Your task to perform on an android device: Play the last video I watched on Youtube Image 0: 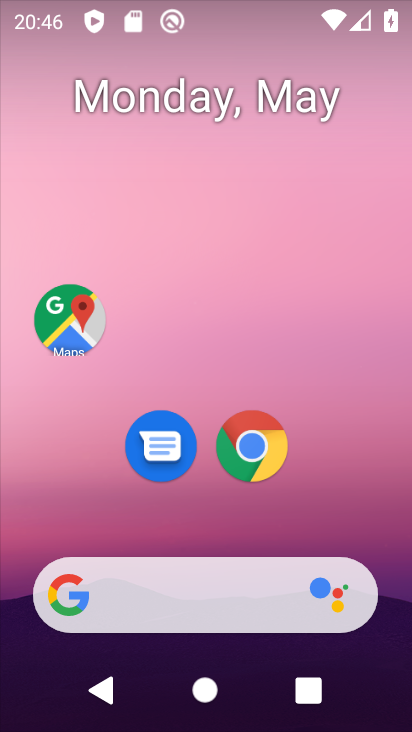
Step 0: drag from (348, 456) to (343, 103)
Your task to perform on an android device: Play the last video I watched on Youtube Image 1: 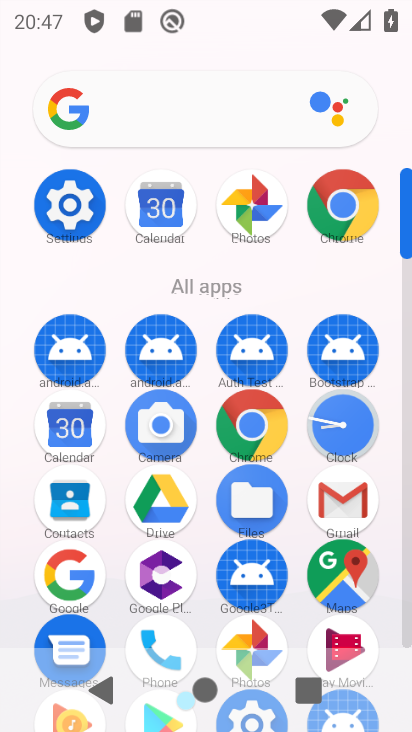
Step 1: drag from (301, 531) to (330, 215)
Your task to perform on an android device: Play the last video I watched on Youtube Image 2: 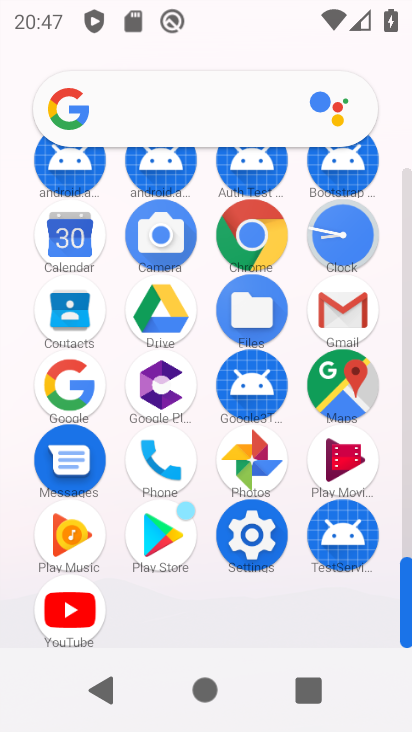
Step 2: click (79, 610)
Your task to perform on an android device: Play the last video I watched on Youtube Image 3: 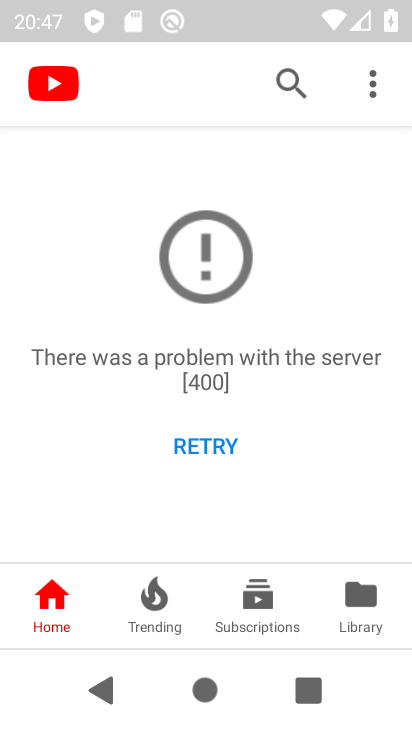
Step 3: click (345, 606)
Your task to perform on an android device: Play the last video I watched on Youtube Image 4: 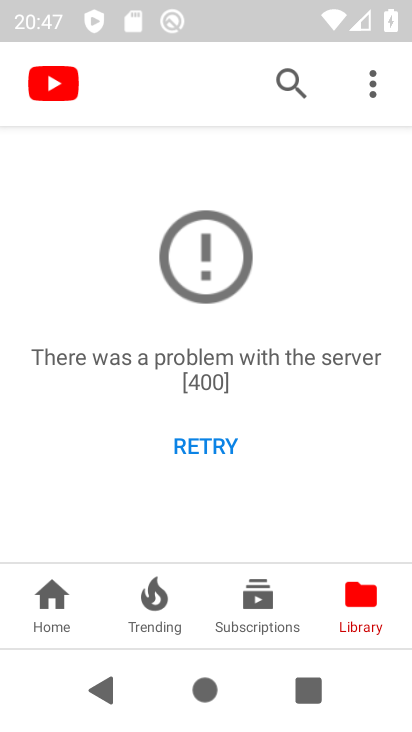
Step 4: task complete